Your task to perform on an android device: Open network settings Image 0: 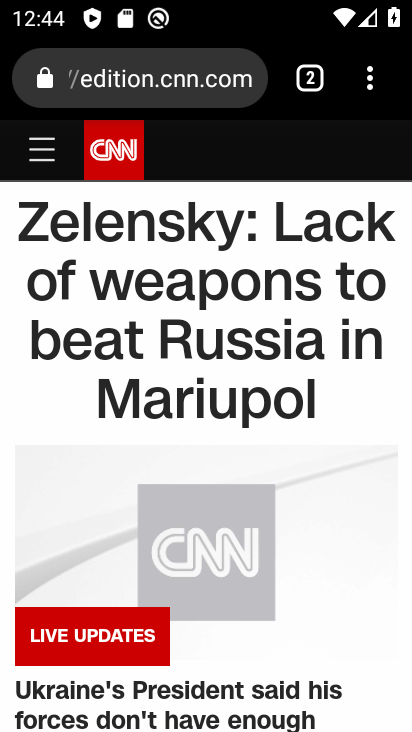
Step 0: press home button
Your task to perform on an android device: Open network settings Image 1: 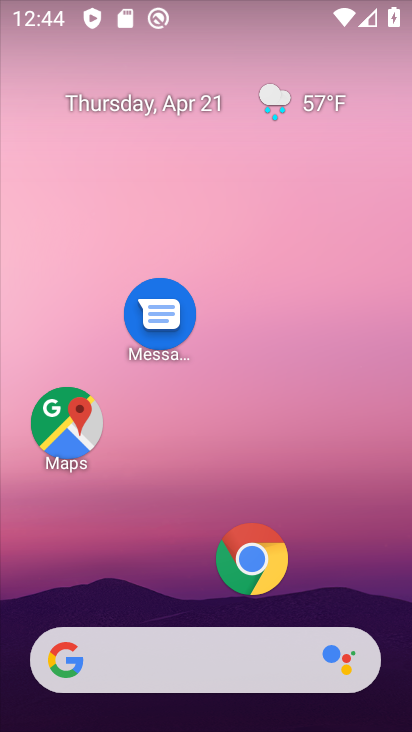
Step 1: drag from (266, 412) to (308, 203)
Your task to perform on an android device: Open network settings Image 2: 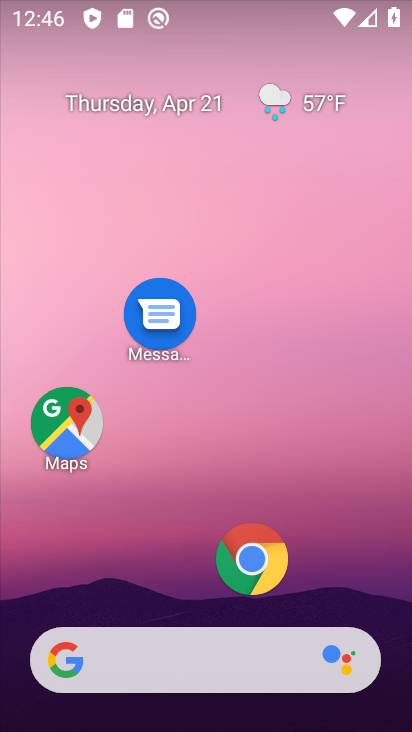
Step 2: drag from (172, 622) to (246, 280)
Your task to perform on an android device: Open network settings Image 3: 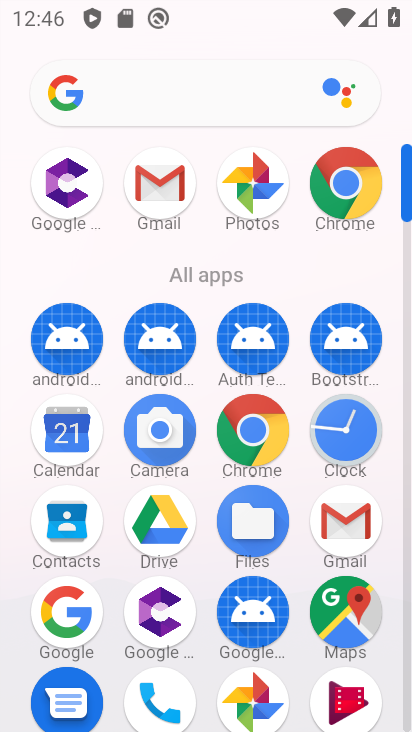
Step 3: drag from (117, 637) to (139, 311)
Your task to perform on an android device: Open network settings Image 4: 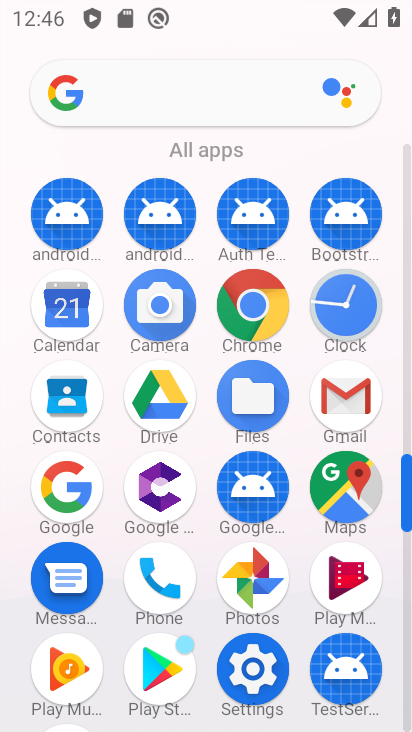
Step 4: click (256, 678)
Your task to perform on an android device: Open network settings Image 5: 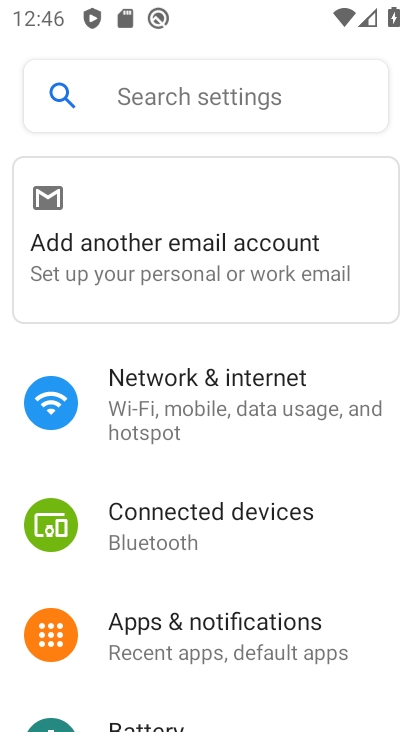
Step 5: click (164, 397)
Your task to perform on an android device: Open network settings Image 6: 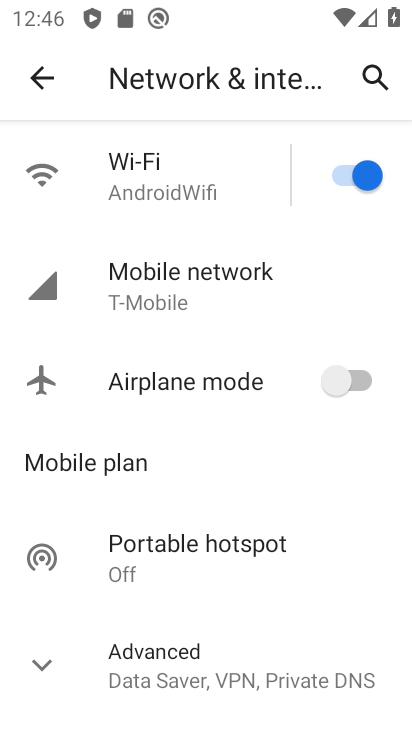
Step 6: click (164, 677)
Your task to perform on an android device: Open network settings Image 7: 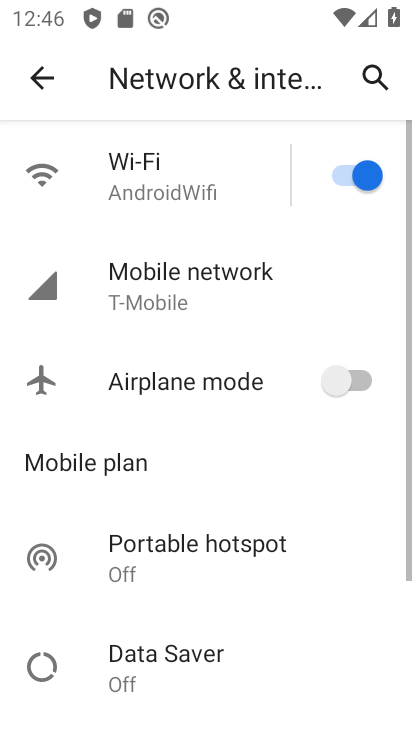
Step 7: click (209, 290)
Your task to perform on an android device: Open network settings Image 8: 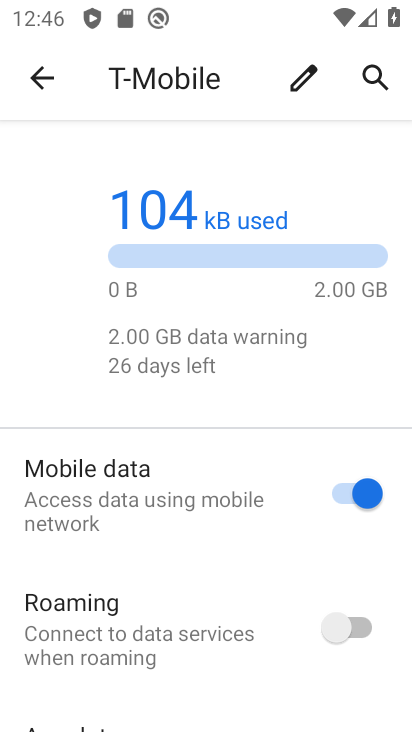
Step 8: drag from (265, 646) to (271, 393)
Your task to perform on an android device: Open network settings Image 9: 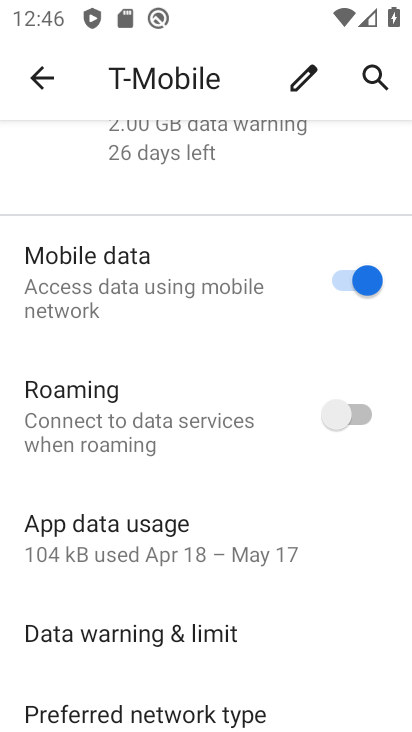
Step 9: drag from (221, 705) to (224, 328)
Your task to perform on an android device: Open network settings Image 10: 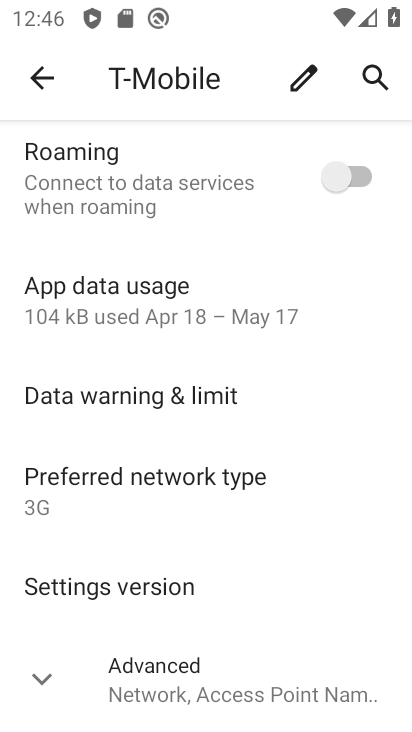
Step 10: click (155, 680)
Your task to perform on an android device: Open network settings Image 11: 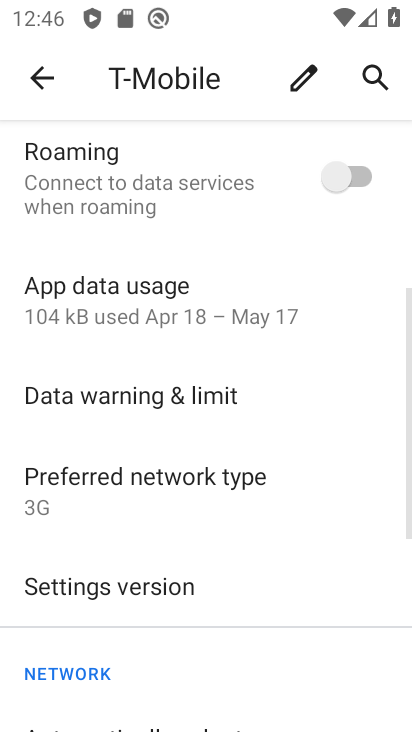
Step 11: click (127, 589)
Your task to perform on an android device: Open network settings Image 12: 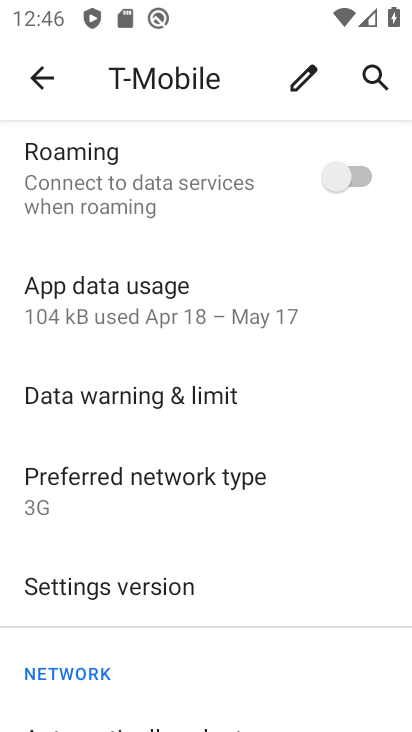
Step 12: click (46, 584)
Your task to perform on an android device: Open network settings Image 13: 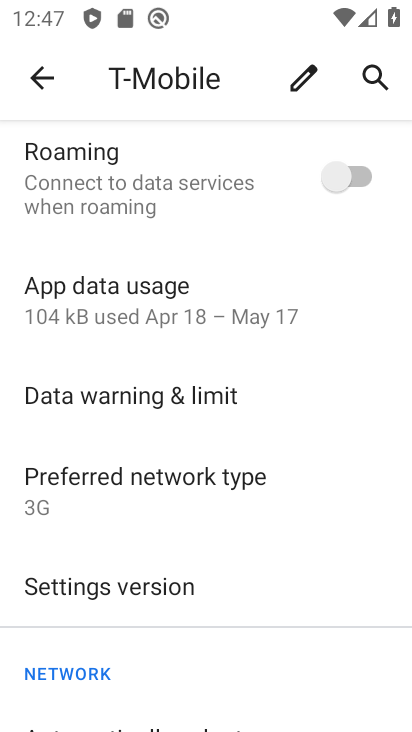
Step 13: task complete